Your task to perform on an android device: Do I have any events this weekend? Image 0: 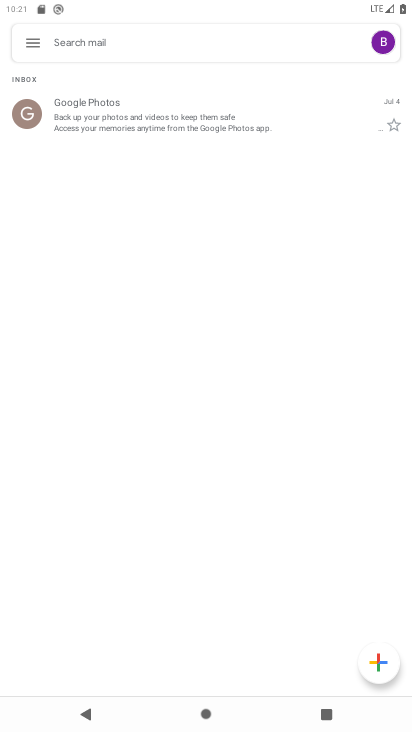
Step 0: press home button
Your task to perform on an android device: Do I have any events this weekend? Image 1: 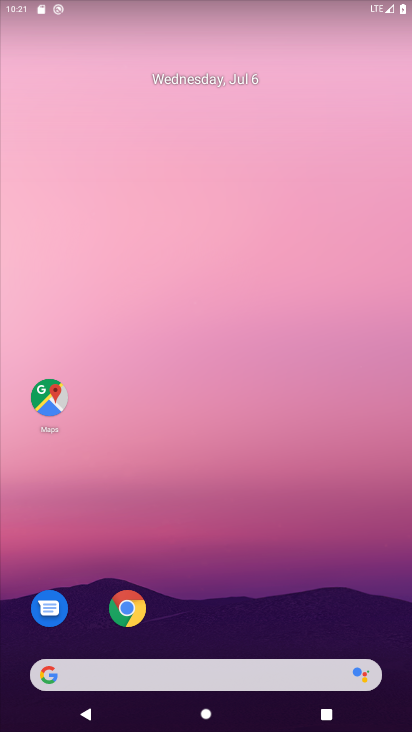
Step 1: drag from (237, 412) to (206, 25)
Your task to perform on an android device: Do I have any events this weekend? Image 2: 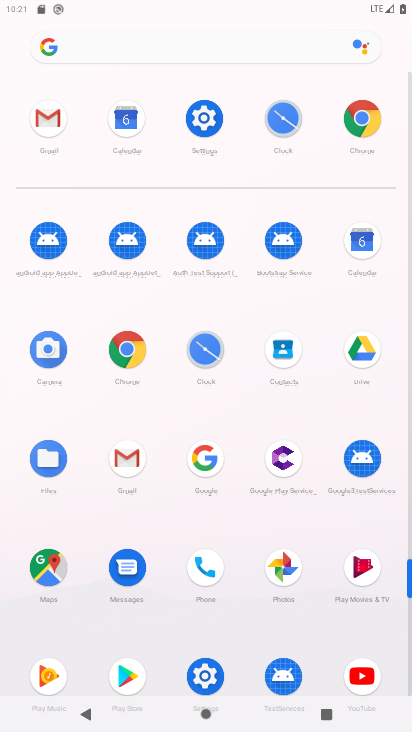
Step 2: click (364, 240)
Your task to perform on an android device: Do I have any events this weekend? Image 3: 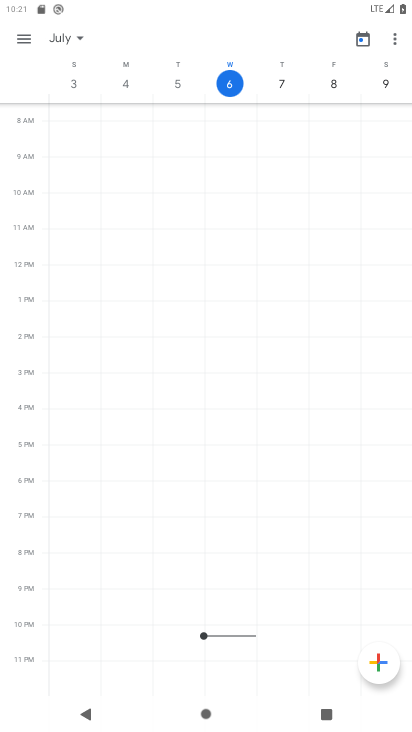
Step 3: click (34, 42)
Your task to perform on an android device: Do I have any events this weekend? Image 4: 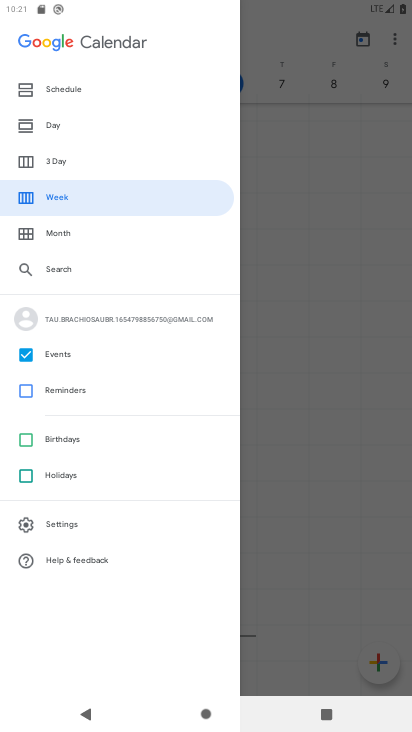
Step 4: task complete